Your task to perform on an android device: Open Google Chrome and open the bookmarks view Image 0: 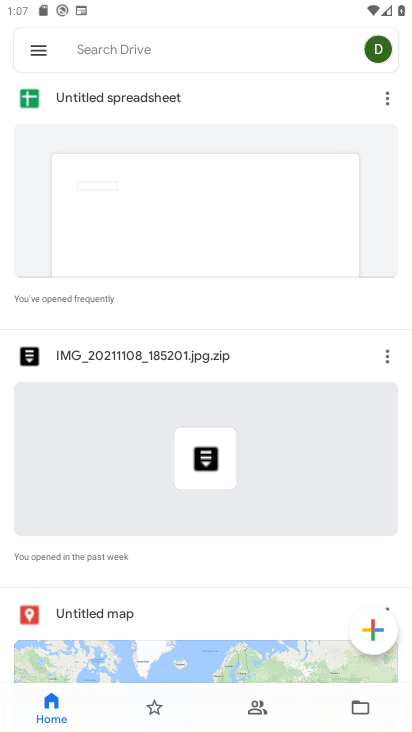
Step 0: press home button
Your task to perform on an android device: Open Google Chrome and open the bookmarks view Image 1: 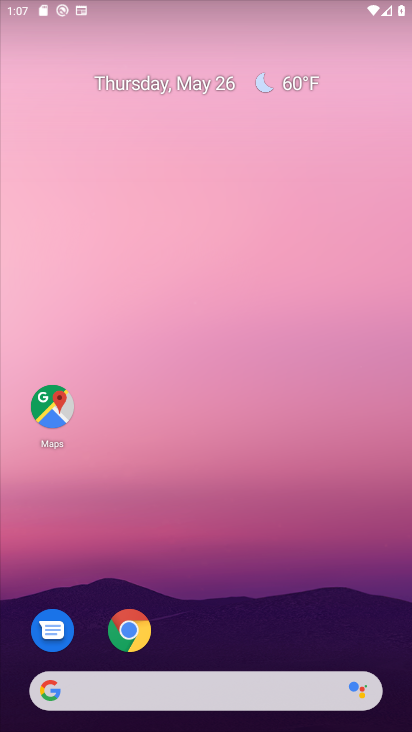
Step 1: drag from (333, 555) to (348, 24)
Your task to perform on an android device: Open Google Chrome and open the bookmarks view Image 2: 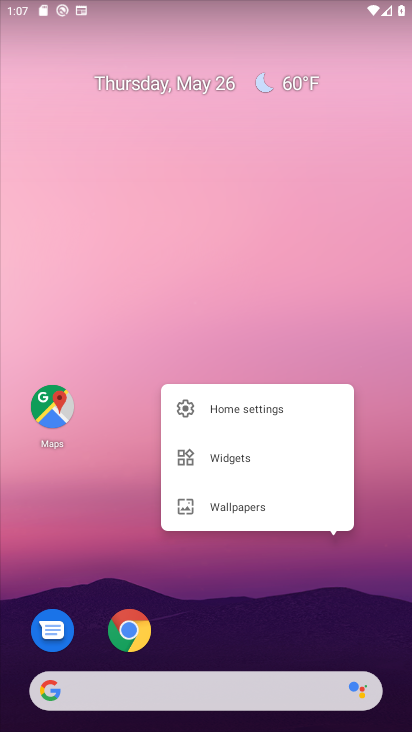
Step 2: click (407, 417)
Your task to perform on an android device: Open Google Chrome and open the bookmarks view Image 3: 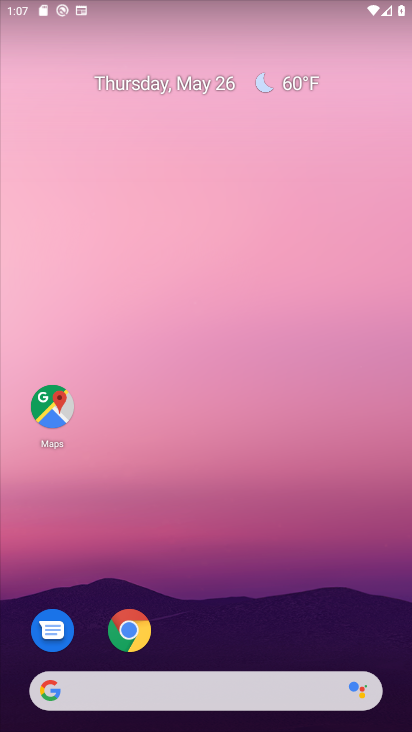
Step 3: click (366, 471)
Your task to perform on an android device: Open Google Chrome and open the bookmarks view Image 4: 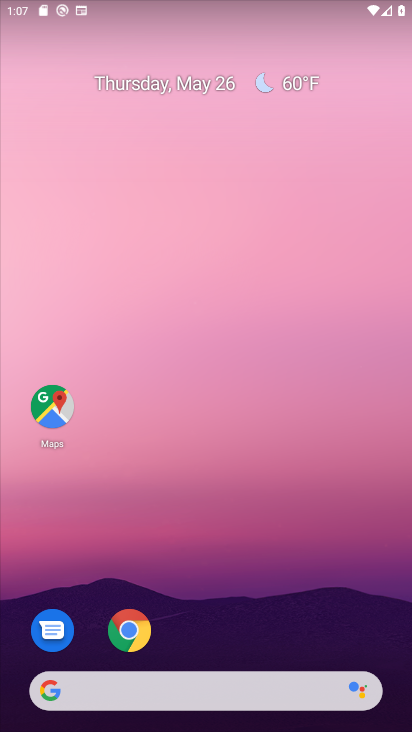
Step 4: drag from (349, 512) to (311, 36)
Your task to perform on an android device: Open Google Chrome and open the bookmarks view Image 5: 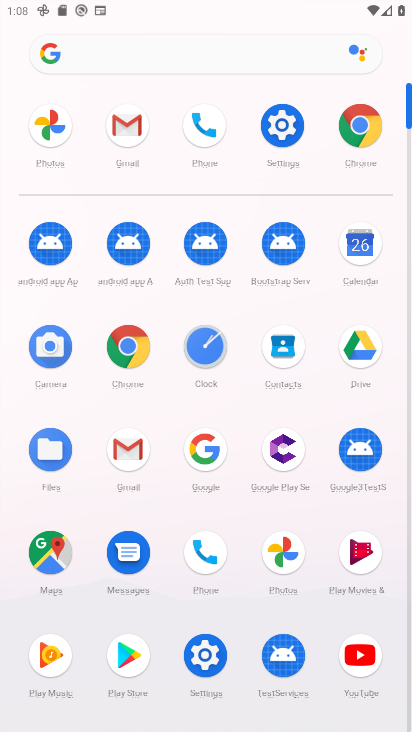
Step 5: click (367, 127)
Your task to perform on an android device: Open Google Chrome and open the bookmarks view Image 6: 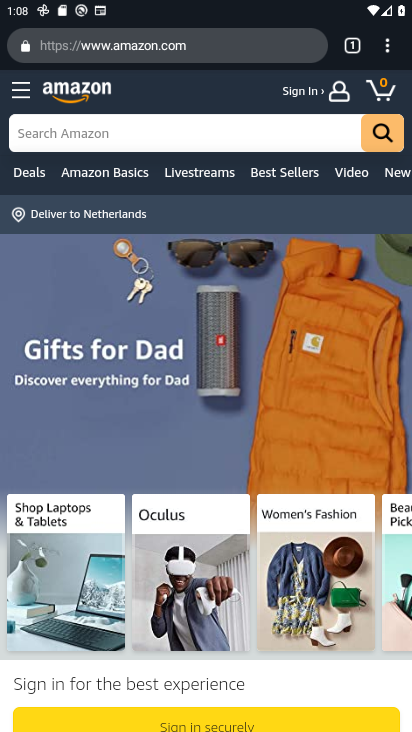
Step 6: task complete